Your task to perform on an android device: empty trash in the gmail app Image 0: 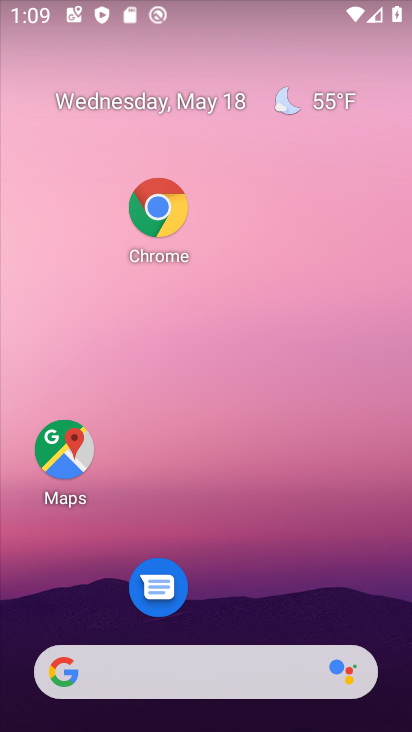
Step 0: drag from (251, 604) to (201, 91)
Your task to perform on an android device: empty trash in the gmail app Image 1: 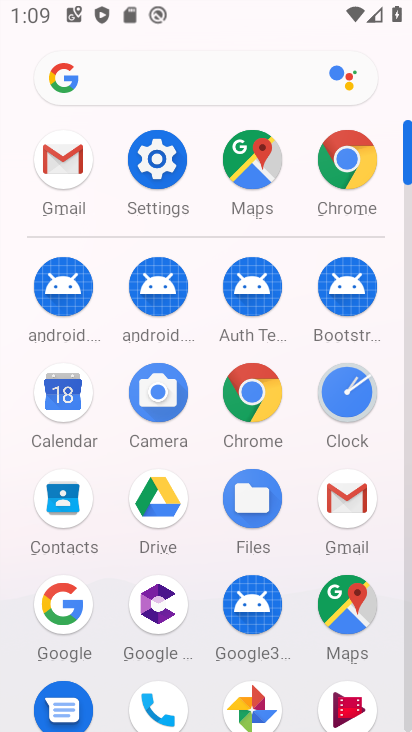
Step 1: click (68, 180)
Your task to perform on an android device: empty trash in the gmail app Image 2: 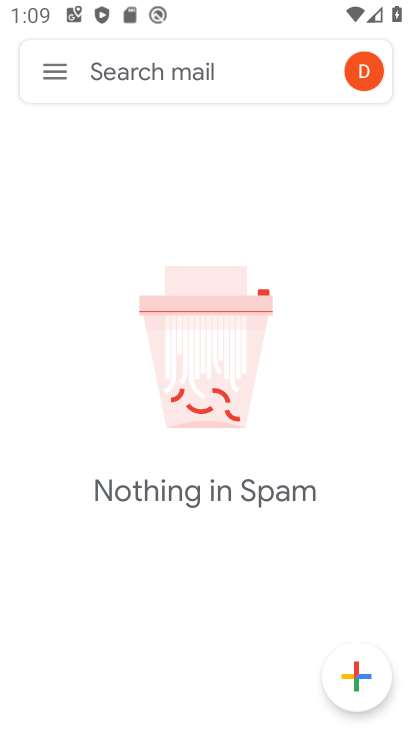
Step 2: click (52, 75)
Your task to perform on an android device: empty trash in the gmail app Image 3: 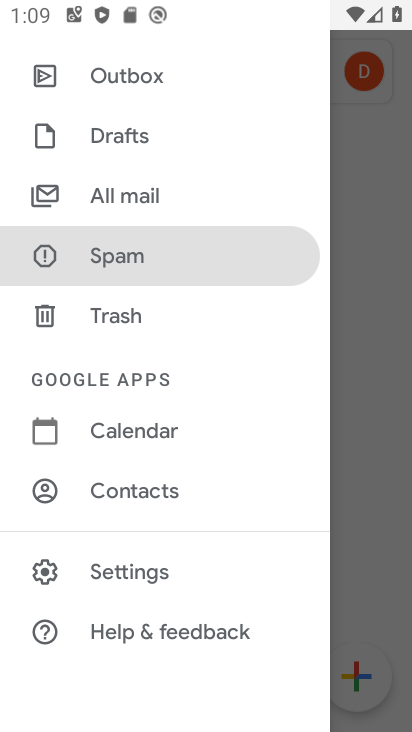
Step 3: click (95, 318)
Your task to perform on an android device: empty trash in the gmail app Image 4: 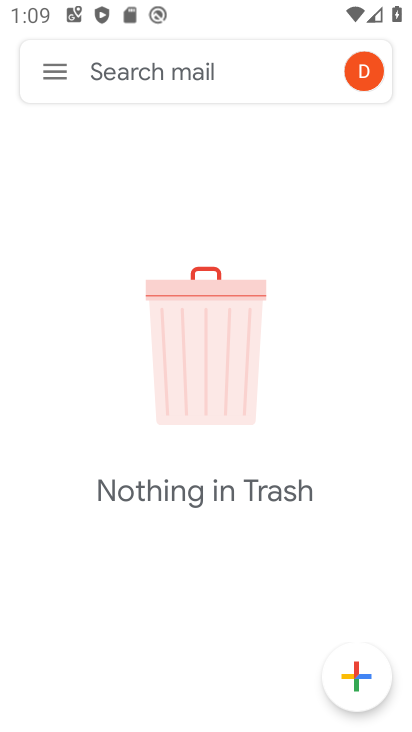
Step 4: task complete